Your task to perform on an android device: What's the latest video from GameSpot News? Image 0: 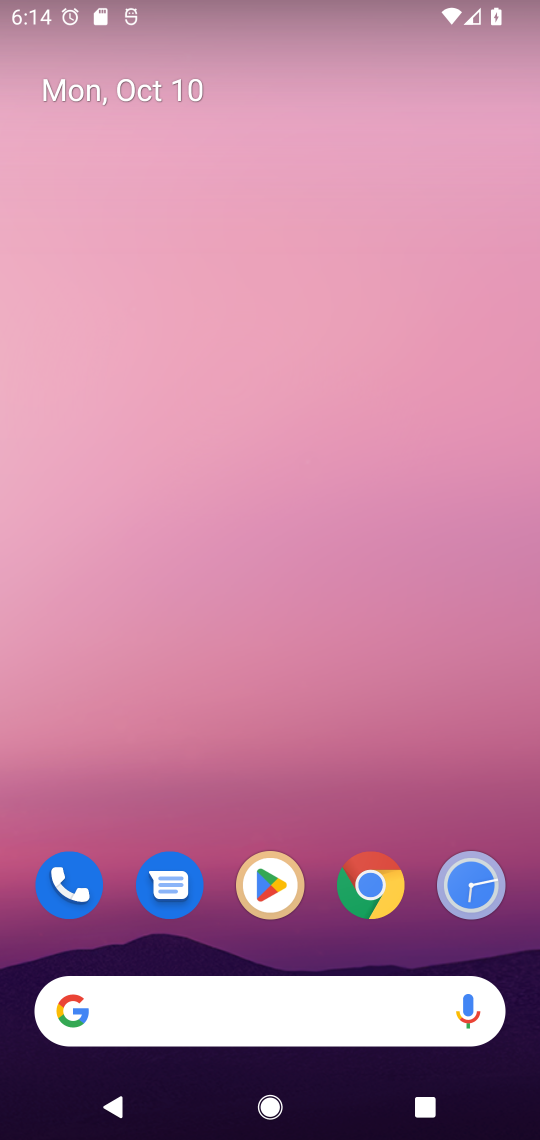
Step 0: click (366, 882)
Your task to perform on an android device: What's the latest video from GameSpot News? Image 1: 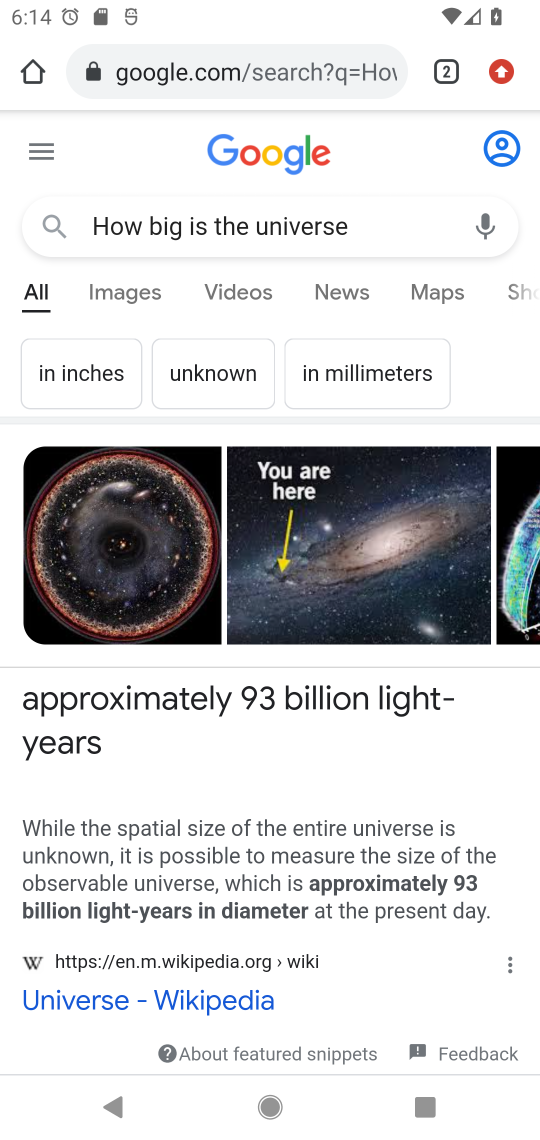
Step 1: click (270, 62)
Your task to perform on an android device: What's the latest video from GameSpot News? Image 2: 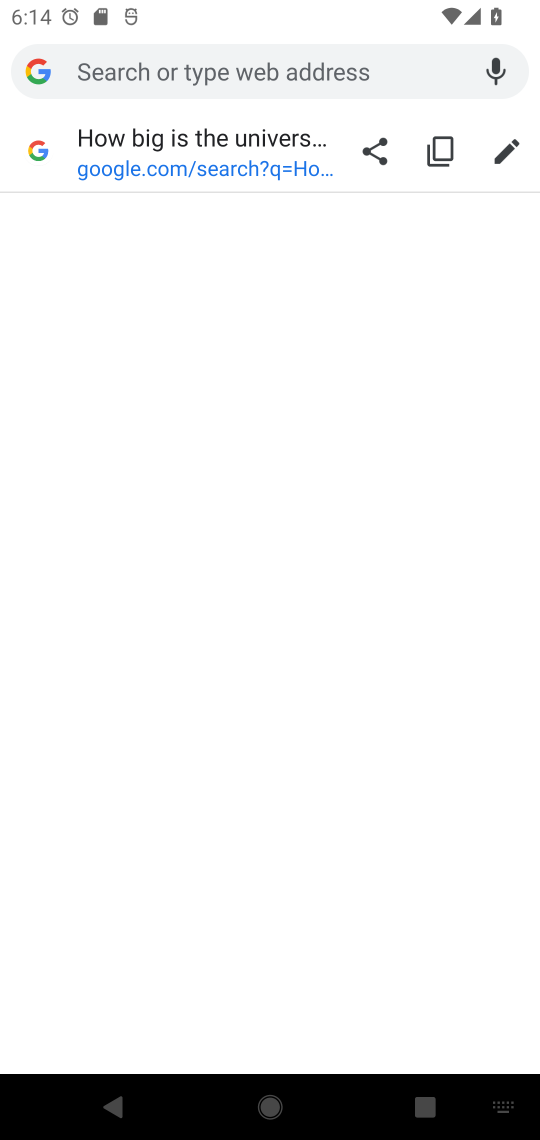
Step 2: type " latest video from GameSpot News"
Your task to perform on an android device: What's the latest video from GameSpot News? Image 3: 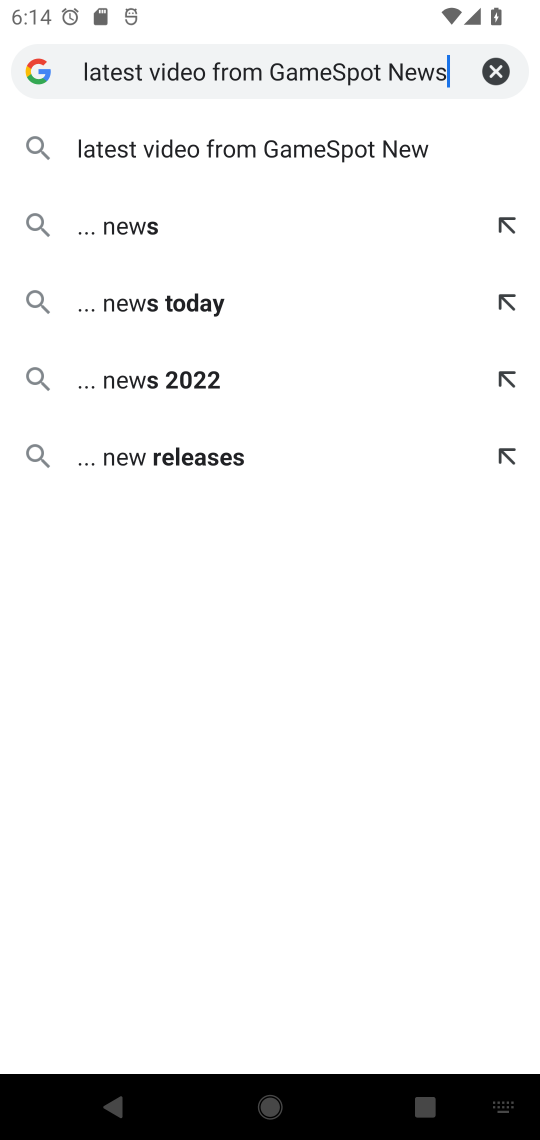
Step 3: type ""
Your task to perform on an android device: What's the latest video from GameSpot News? Image 4: 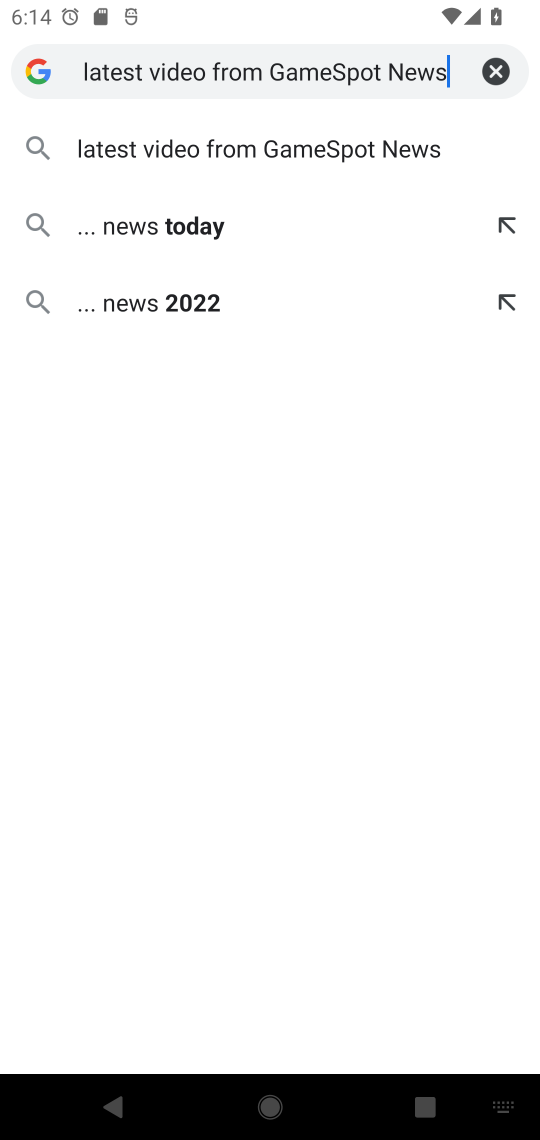
Step 4: click (142, 150)
Your task to perform on an android device: What's the latest video from GameSpot News? Image 5: 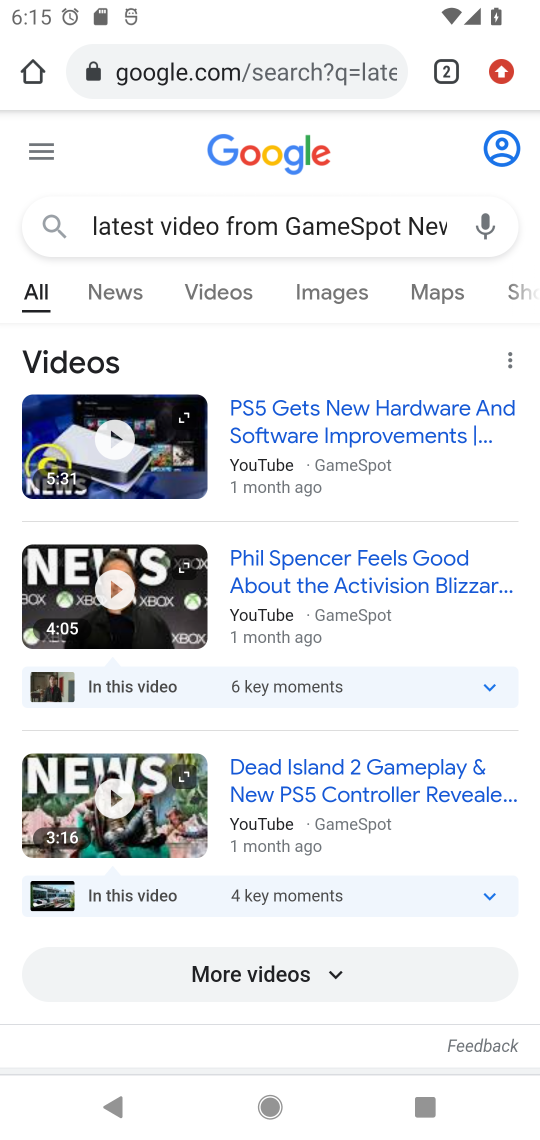
Step 5: drag from (330, 1010) to (347, 409)
Your task to perform on an android device: What's the latest video from GameSpot News? Image 6: 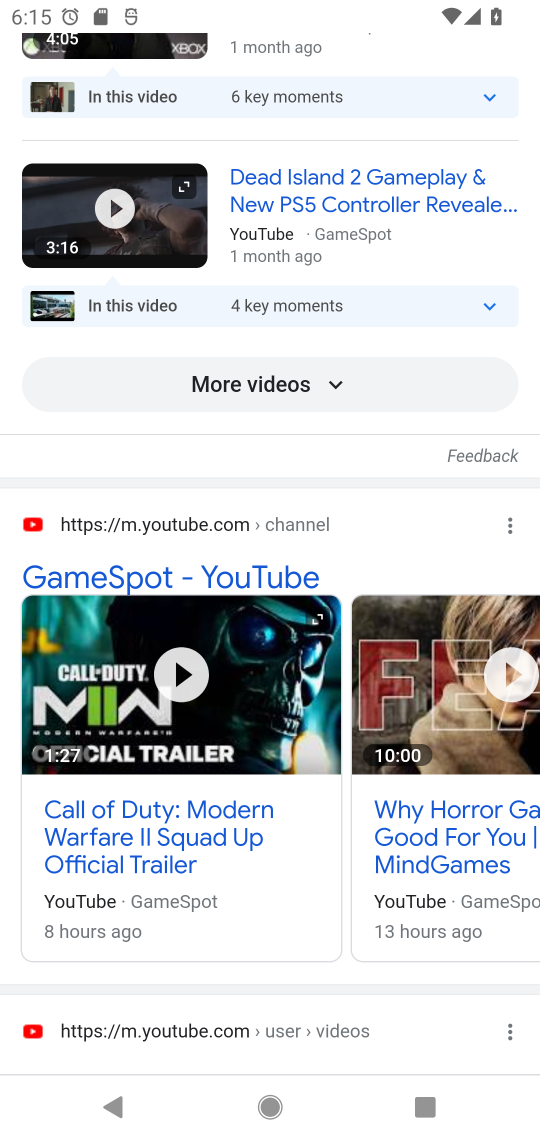
Step 6: click (228, 741)
Your task to perform on an android device: What's the latest video from GameSpot News? Image 7: 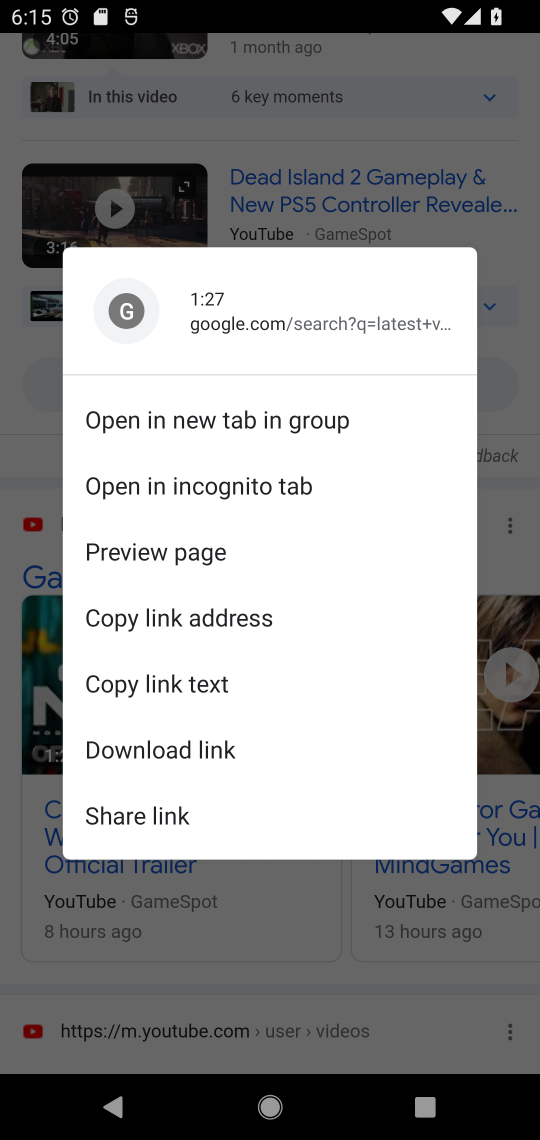
Step 7: click (153, 901)
Your task to perform on an android device: What's the latest video from GameSpot News? Image 8: 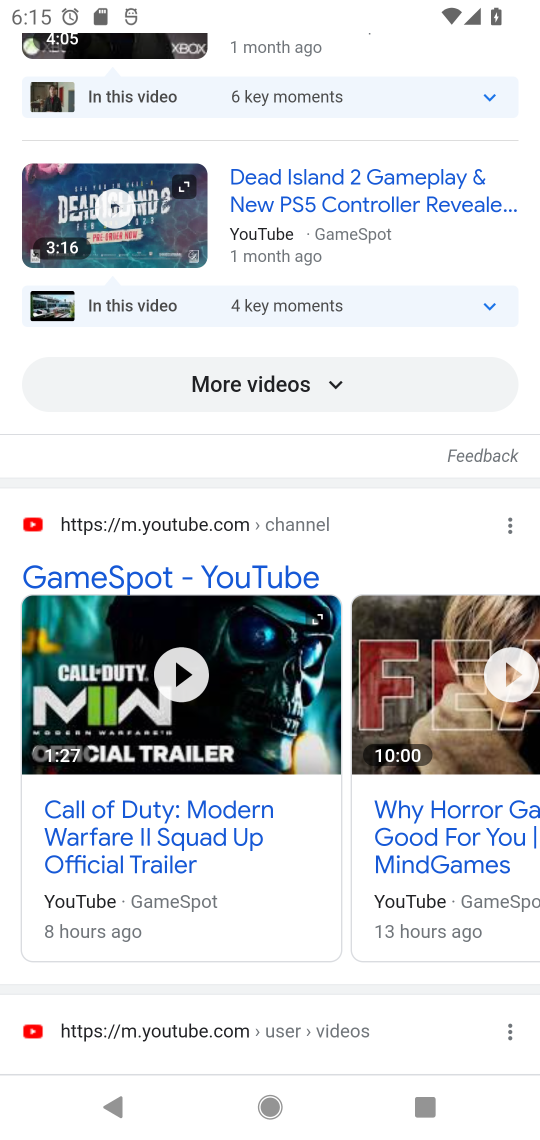
Step 8: click (86, 683)
Your task to perform on an android device: What's the latest video from GameSpot News? Image 9: 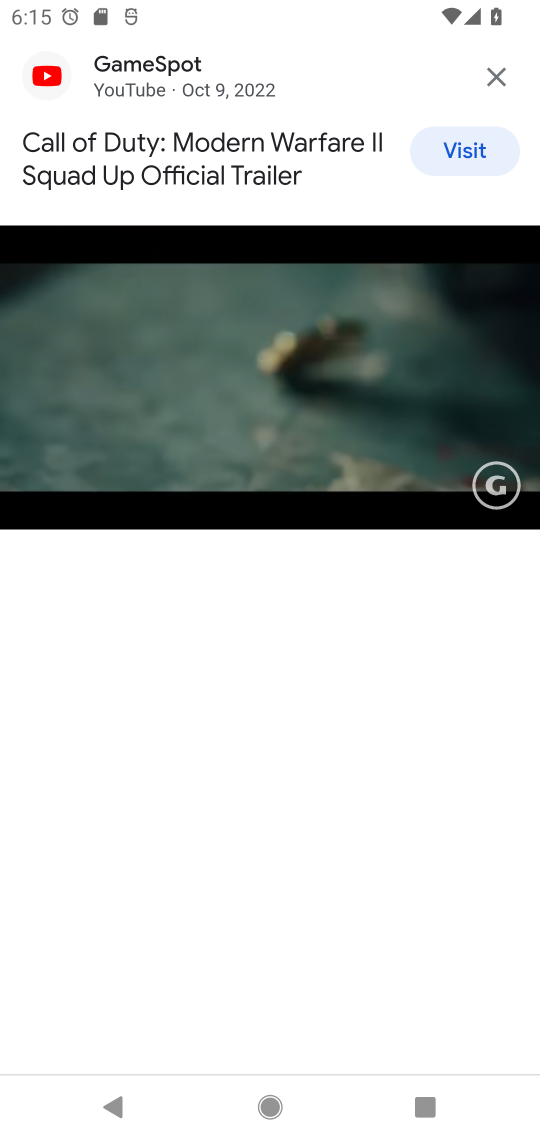
Step 9: task complete